Your task to perform on an android device: Go to privacy settings Image 0: 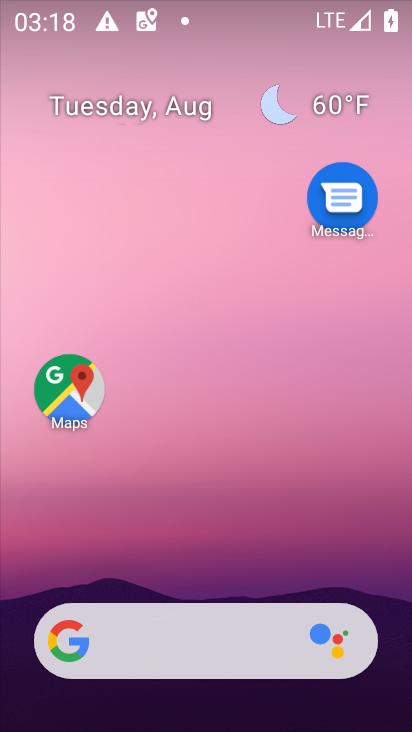
Step 0: drag from (209, 591) to (250, 78)
Your task to perform on an android device: Go to privacy settings Image 1: 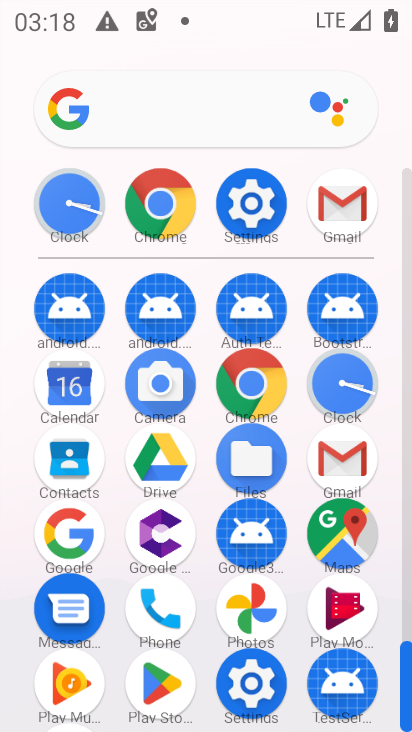
Step 1: click (246, 189)
Your task to perform on an android device: Go to privacy settings Image 2: 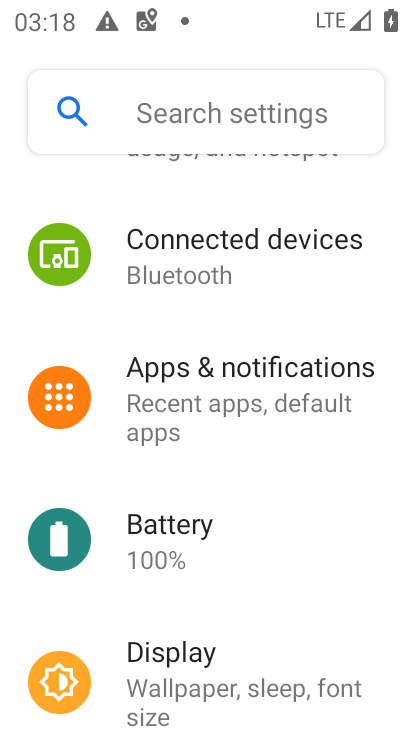
Step 2: drag from (230, 625) to (246, 262)
Your task to perform on an android device: Go to privacy settings Image 3: 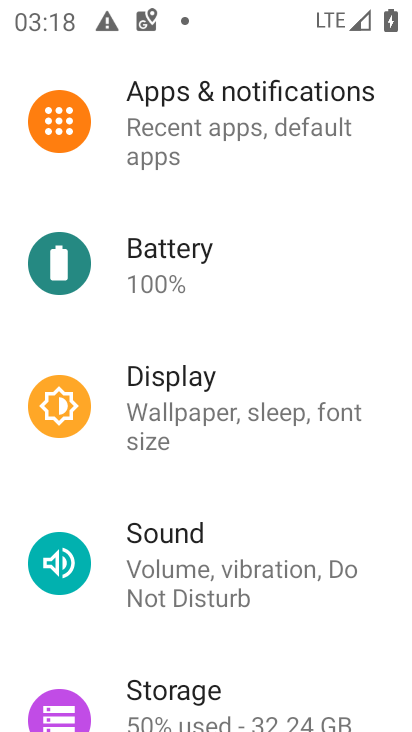
Step 3: drag from (214, 686) to (168, 213)
Your task to perform on an android device: Go to privacy settings Image 4: 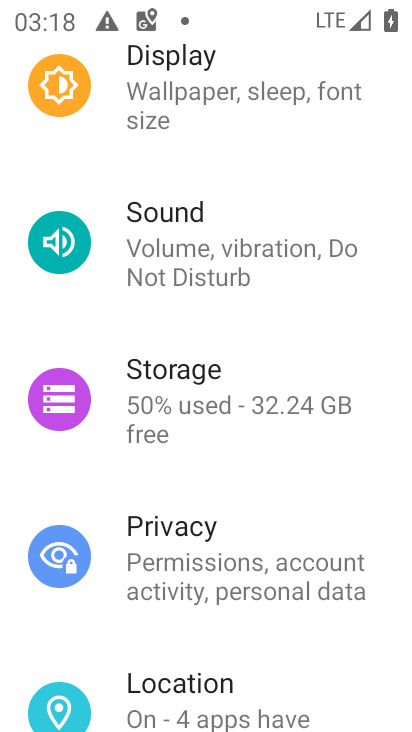
Step 4: click (241, 591)
Your task to perform on an android device: Go to privacy settings Image 5: 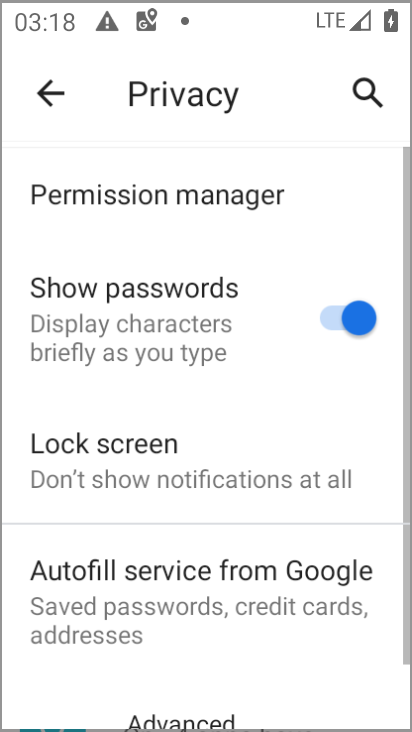
Step 5: task complete